Your task to perform on an android device: change notification settings in the gmail app Image 0: 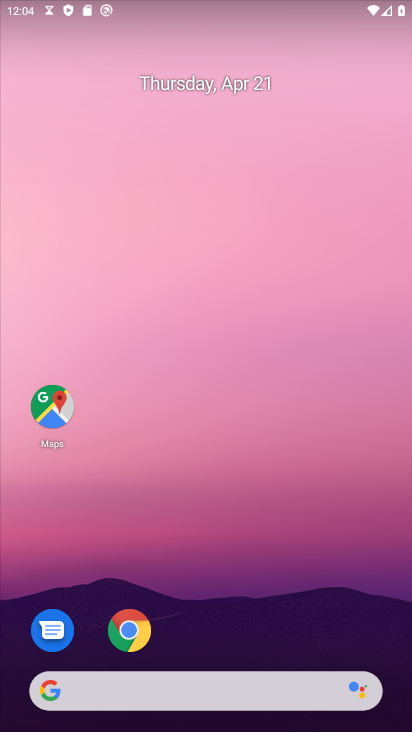
Step 0: drag from (292, 633) to (226, 215)
Your task to perform on an android device: change notification settings in the gmail app Image 1: 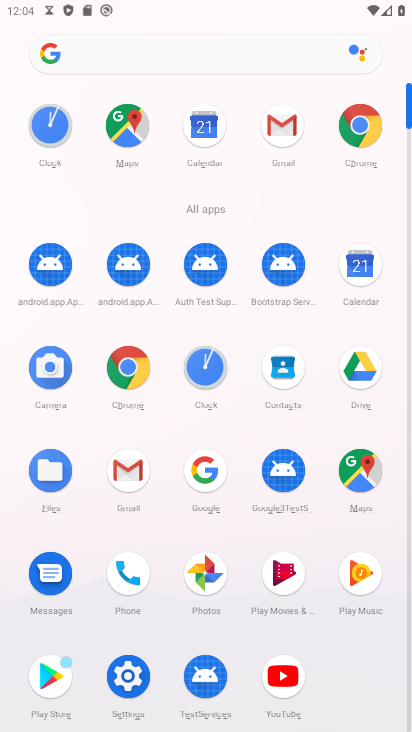
Step 1: click (140, 462)
Your task to perform on an android device: change notification settings in the gmail app Image 2: 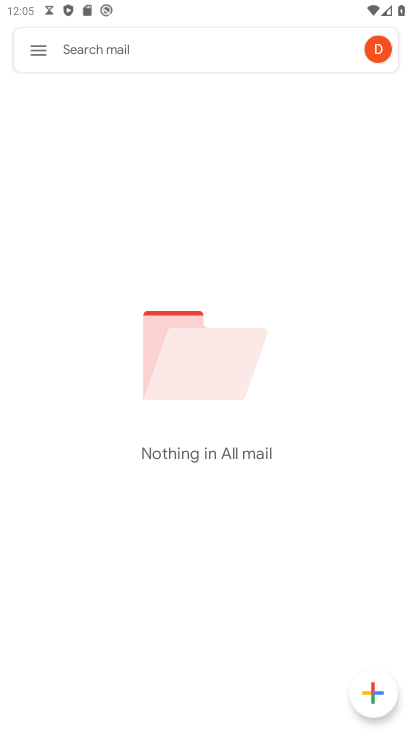
Step 2: click (39, 49)
Your task to perform on an android device: change notification settings in the gmail app Image 3: 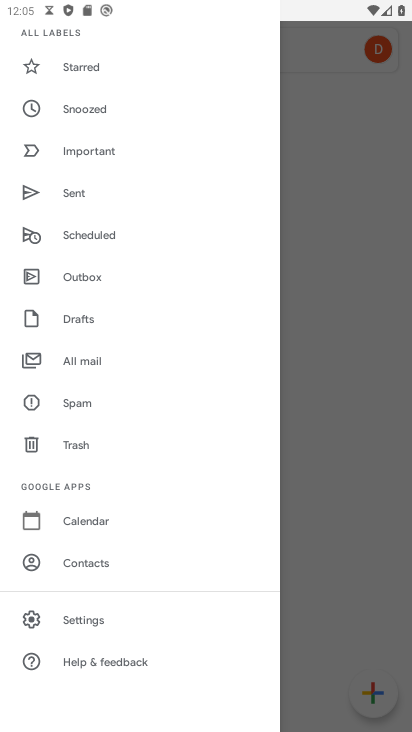
Step 3: click (158, 614)
Your task to perform on an android device: change notification settings in the gmail app Image 4: 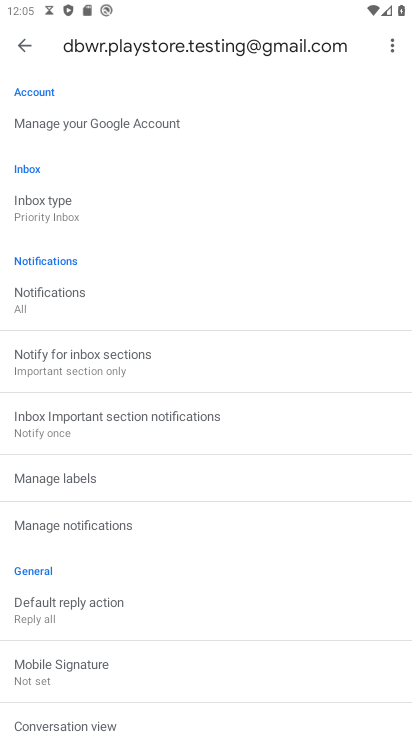
Step 4: drag from (158, 614) to (168, 522)
Your task to perform on an android device: change notification settings in the gmail app Image 5: 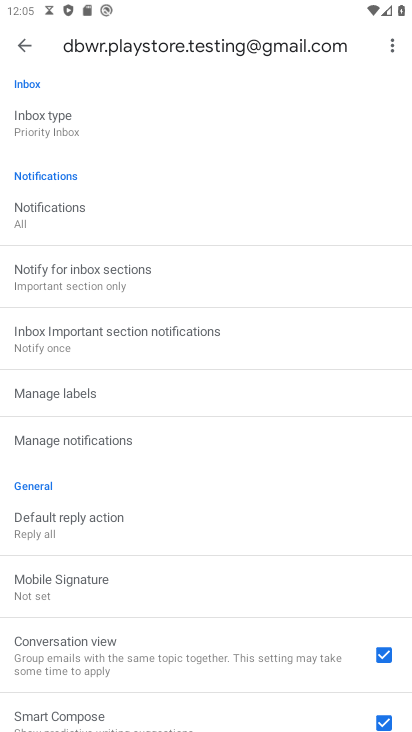
Step 5: click (174, 451)
Your task to perform on an android device: change notification settings in the gmail app Image 6: 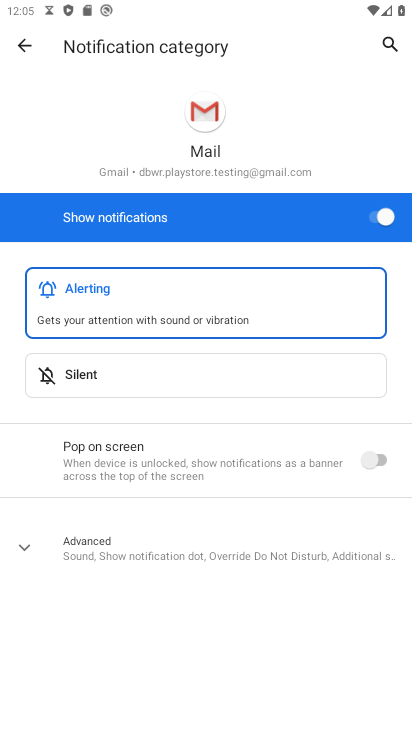
Step 6: click (277, 366)
Your task to perform on an android device: change notification settings in the gmail app Image 7: 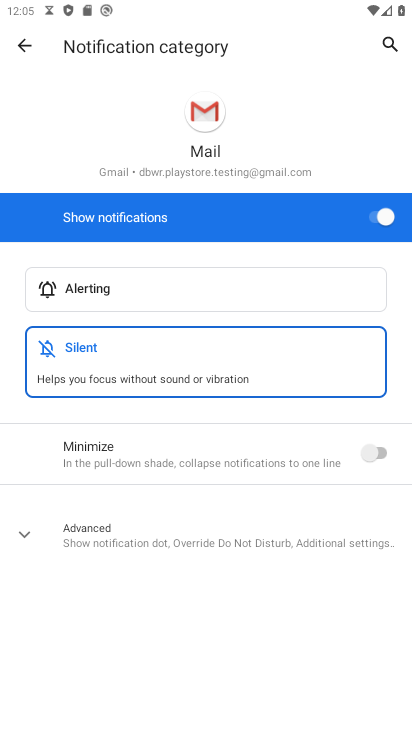
Step 7: click (370, 451)
Your task to perform on an android device: change notification settings in the gmail app Image 8: 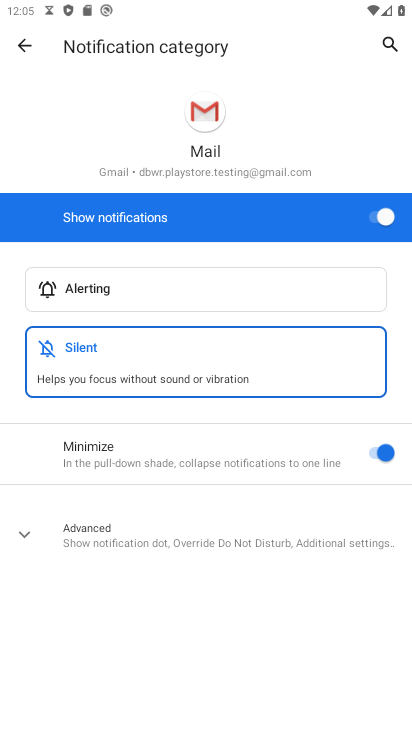
Step 8: task complete